Your task to perform on an android device: Open maps Image 0: 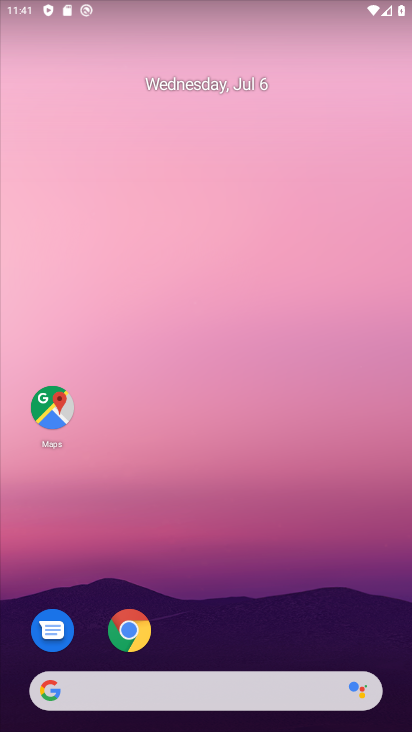
Step 0: drag from (186, 644) to (208, 125)
Your task to perform on an android device: Open maps Image 1: 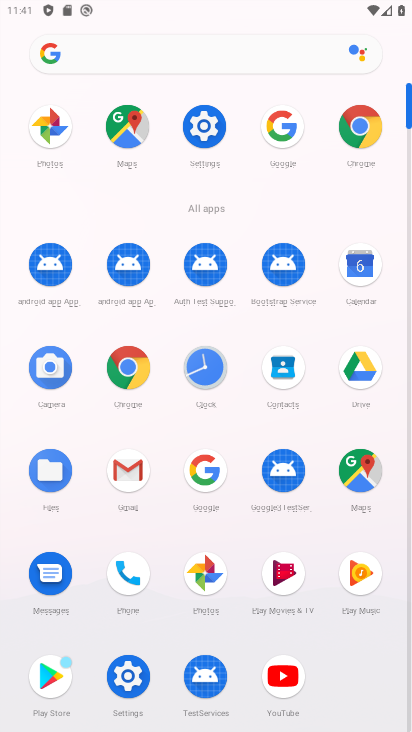
Step 1: click (358, 482)
Your task to perform on an android device: Open maps Image 2: 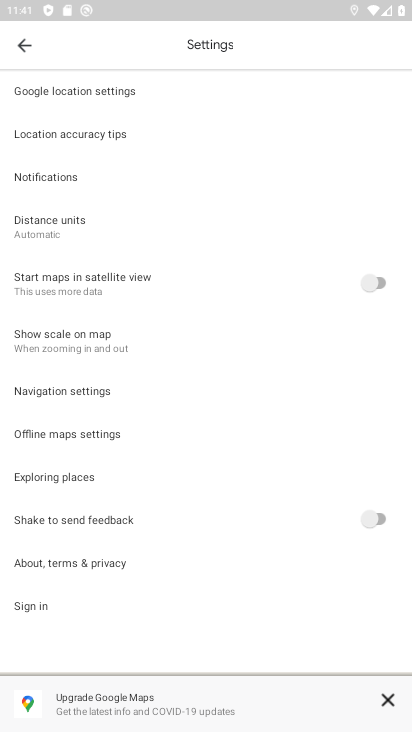
Step 2: click (25, 46)
Your task to perform on an android device: Open maps Image 3: 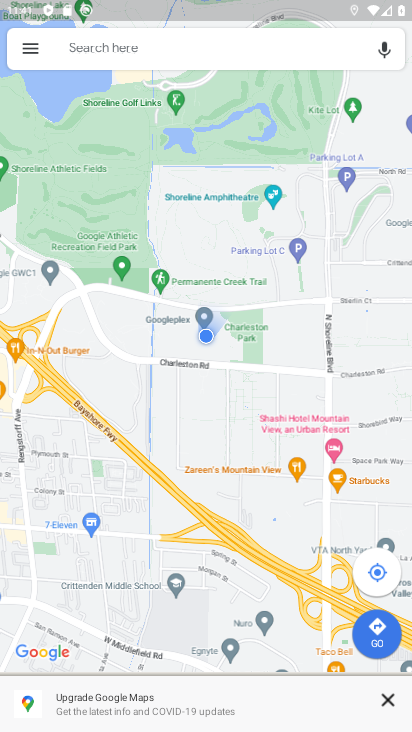
Step 3: task complete